Your task to perform on an android device: empty trash in the gmail app Image 0: 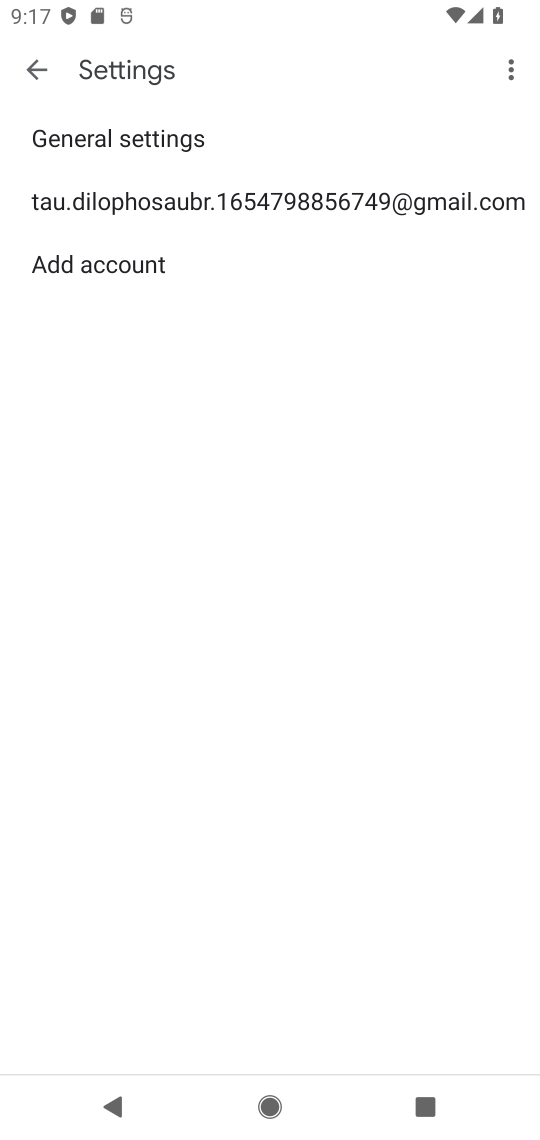
Step 0: press home button
Your task to perform on an android device: empty trash in the gmail app Image 1: 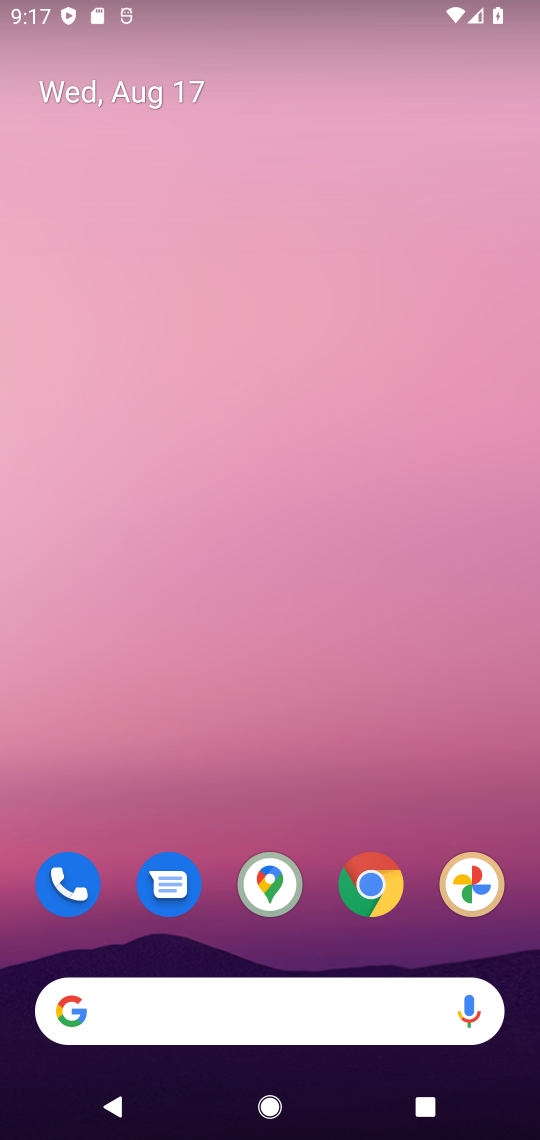
Step 1: drag from (285, 825) to (219, 265)
Your task to perform on an android device: empty trash in the gmail app Image 2: 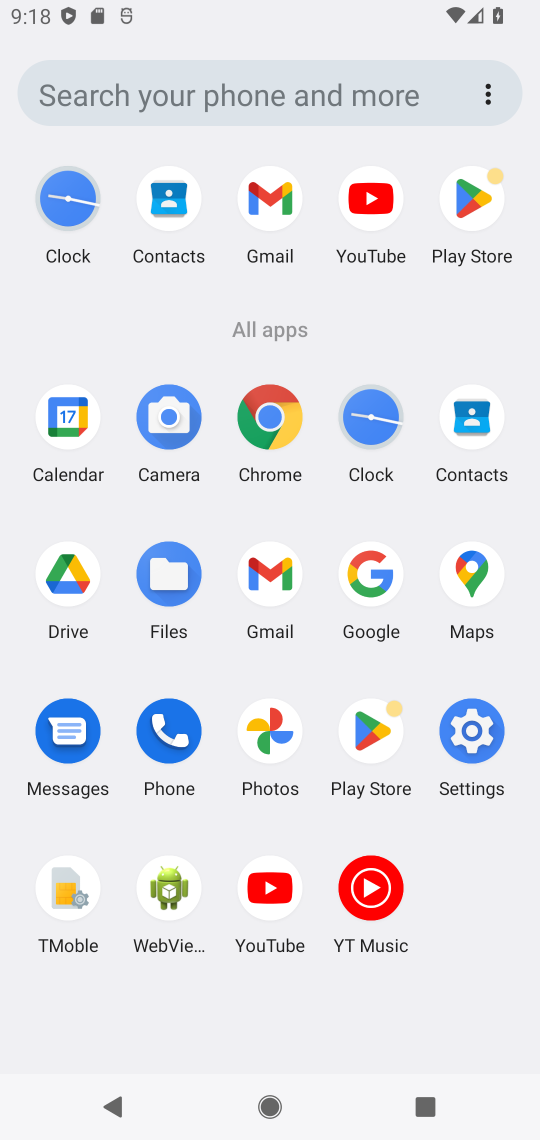
Step 2: click (276, 585)
Your task to perform on an android device: empty trash in the gmail app Image 3: 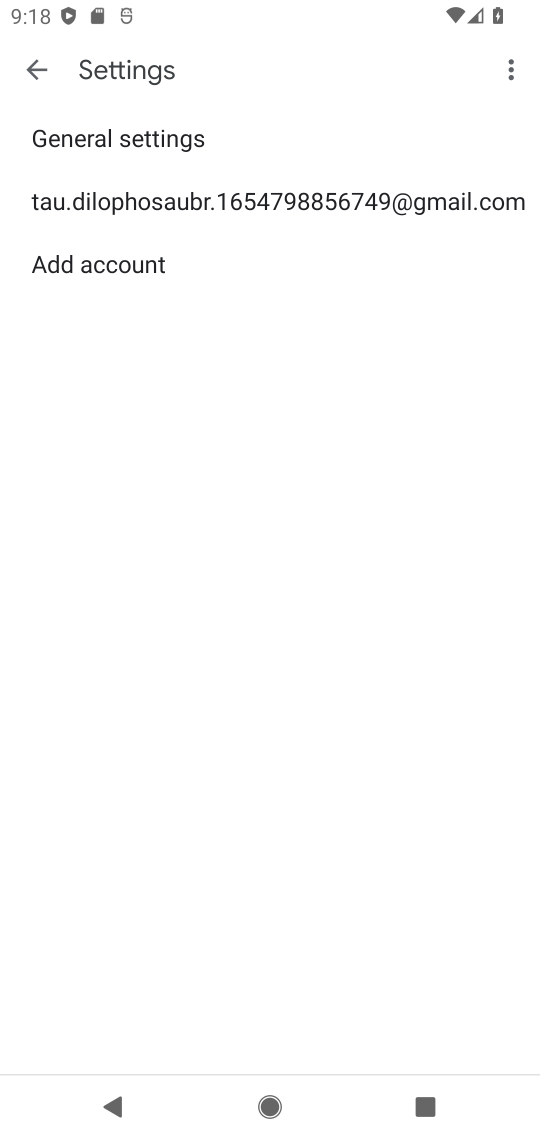
Step 3: click (32, 64)
Your task to perform on an android device: empty trash in the gmail app Image 4: 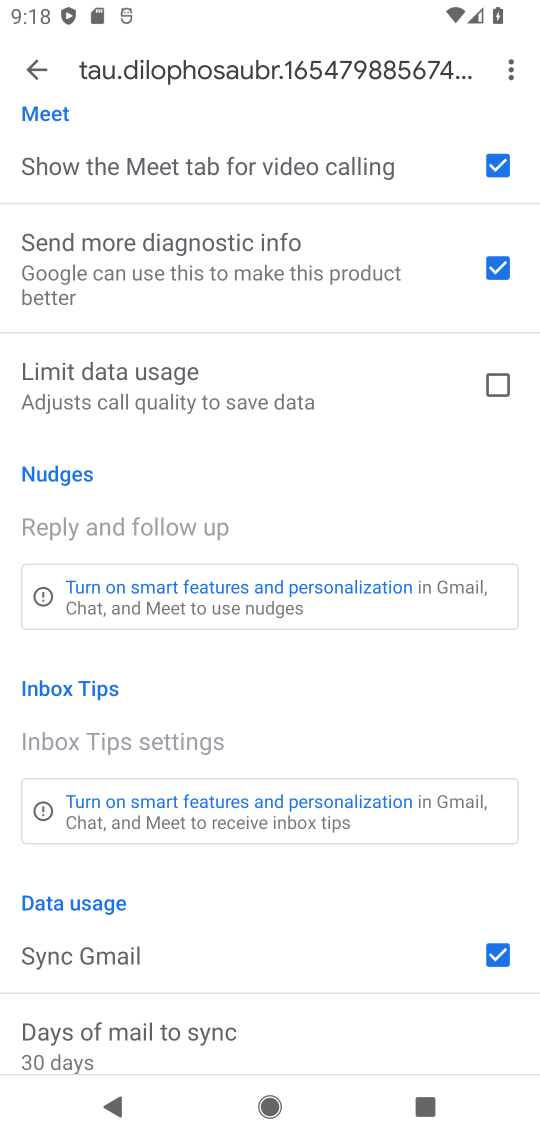
Step 4: click (50, 71)
Your task to perform on an android device: empty trash in the gmail app Image 5: 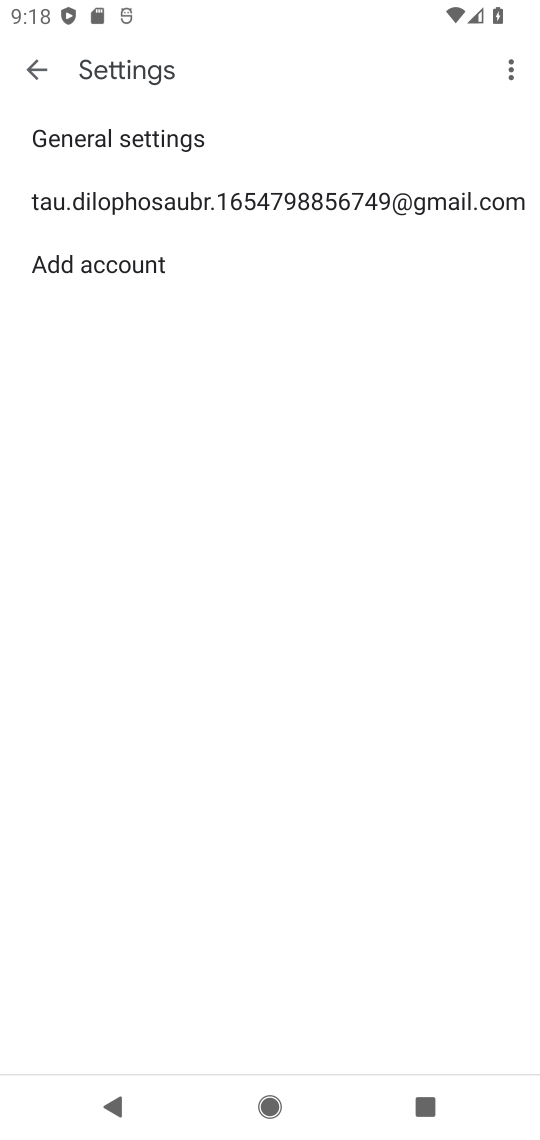
Step 5: click (50, 71)
Your task to perform on an android device: empty trash in the gmail app Image 6: 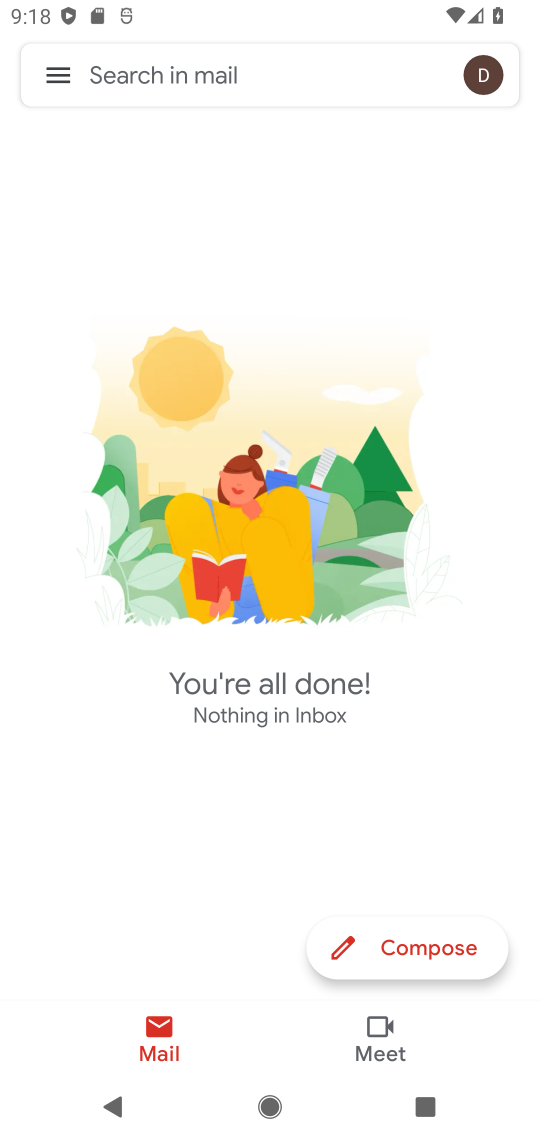
Step 6: click (54, 77)
Your task to perform on an android device: empty trash in the gmail app Image 7: 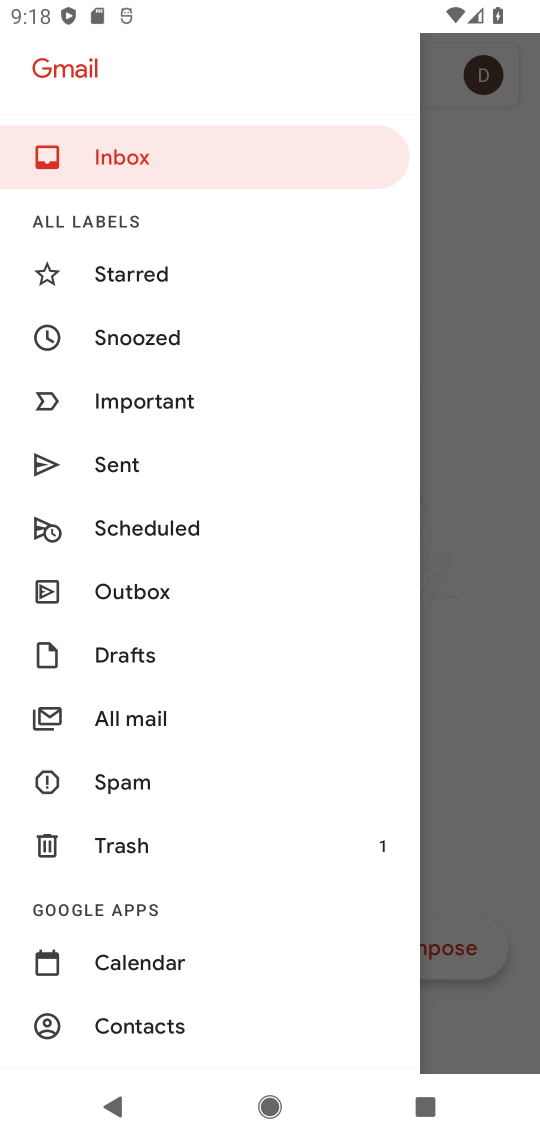
Step 7: click (140, 844)
Your task to perform on an android device: empty trash in the gmail app Image 8: 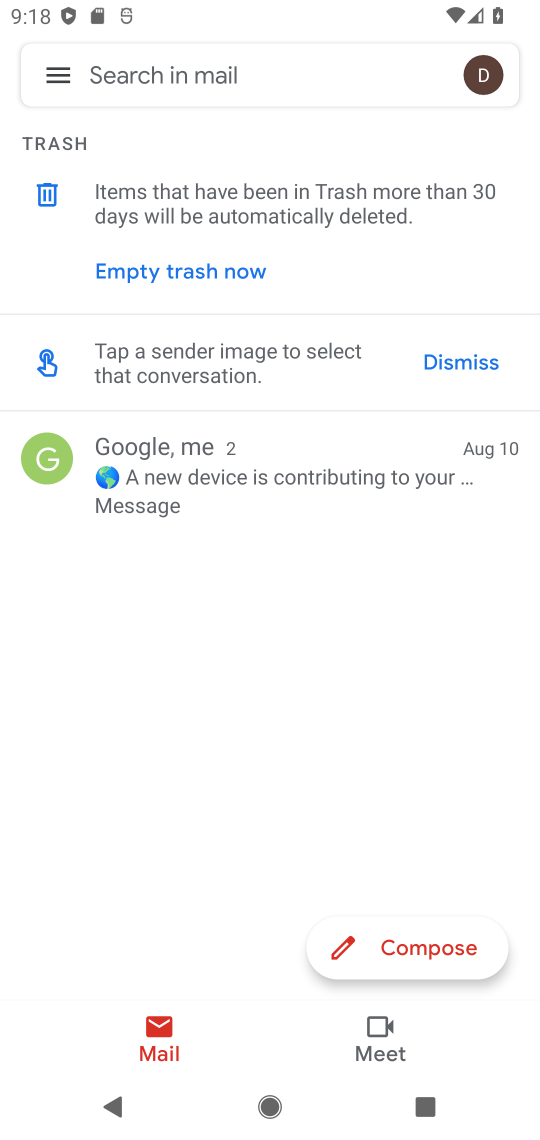
Step 8: click (177, 283)
Your task to perform on an android device: empty trash in the gmail app Image 9: 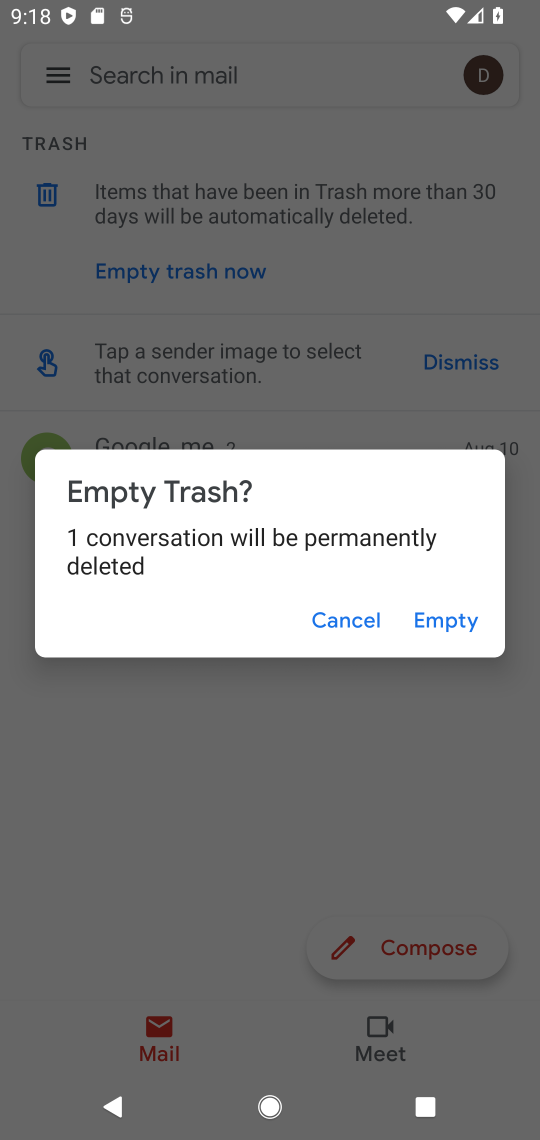
Step 9: click (450, 625)
Your task to perform on an android device: empty trash in the gmail app Image 10: 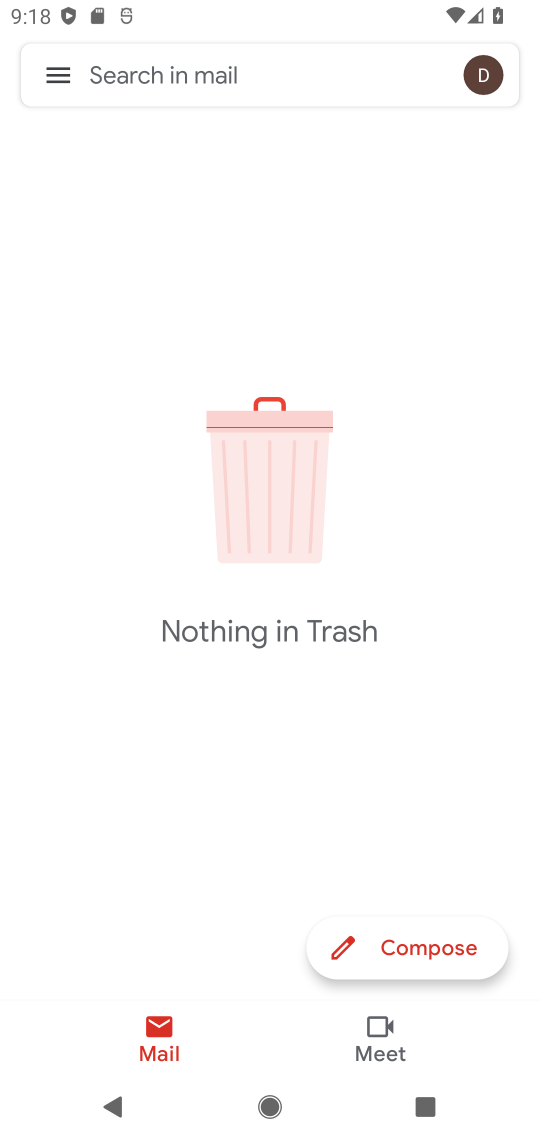
Step 10: task complete